Your task to perform on an android device: Add alienware area 51 to the cart on ebay Image 0: 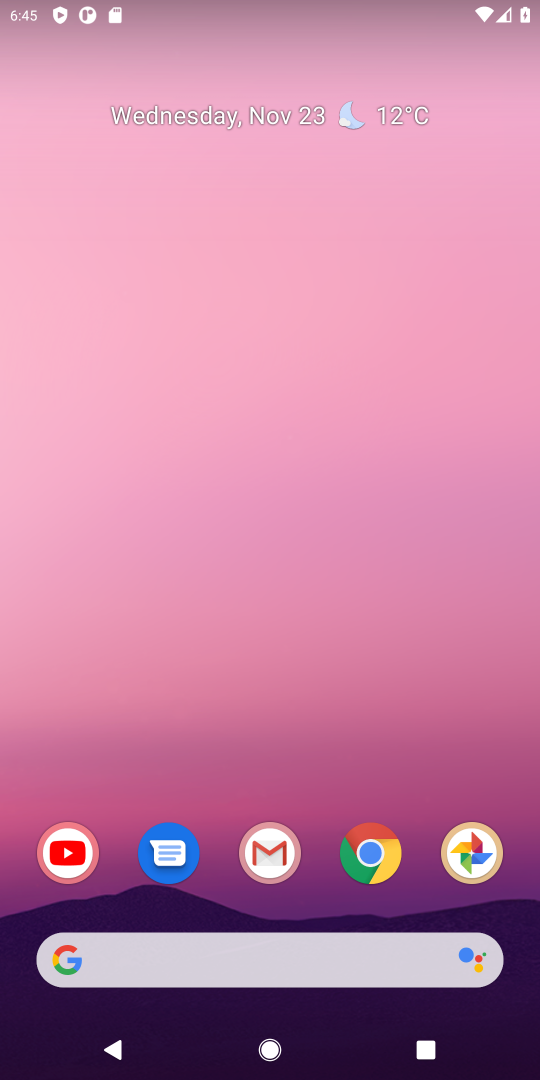
Step 0: click (379, 859)
Your task to perform on an android device: Add alienware area 51 to the cart on ebay Image 1: 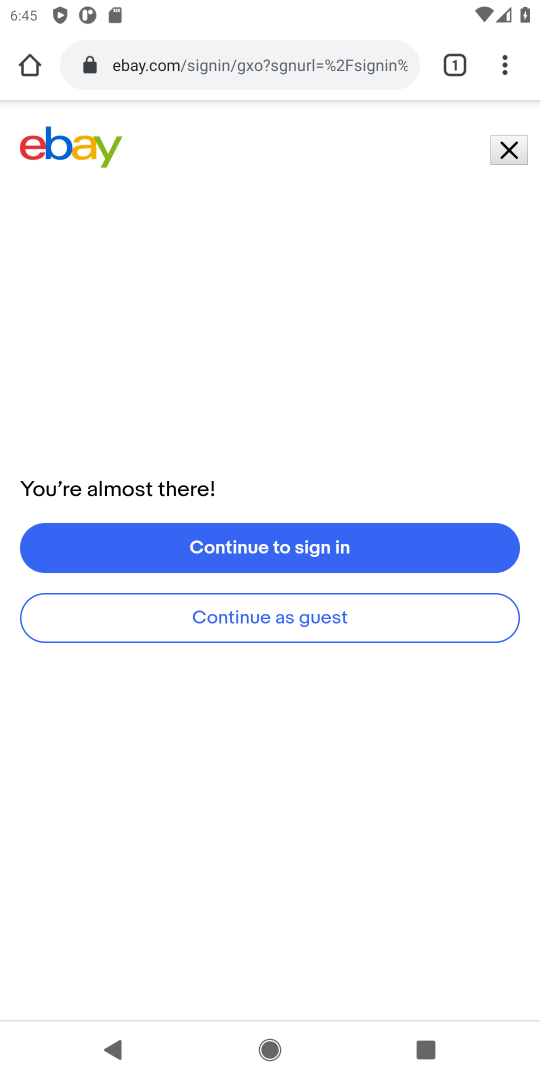
Step 1: click (512, 151)
Your task to perform on an android device: Add alienware area 51 to the cart on ebay Image 2: 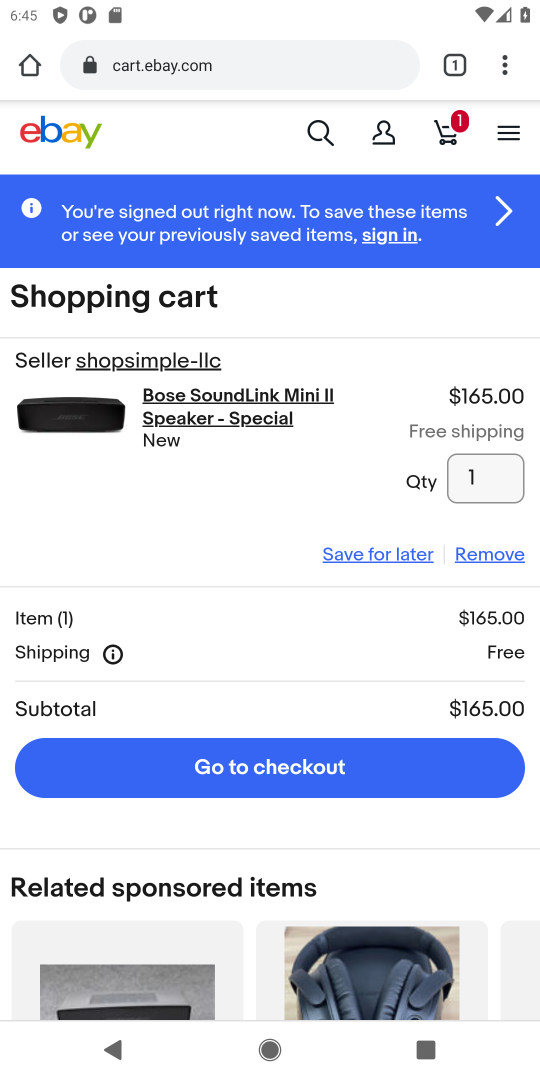
Step 2: click (325, 129)
Your task to perform on an android device: Add alienware area 51 to the cart on ebay Image 3: 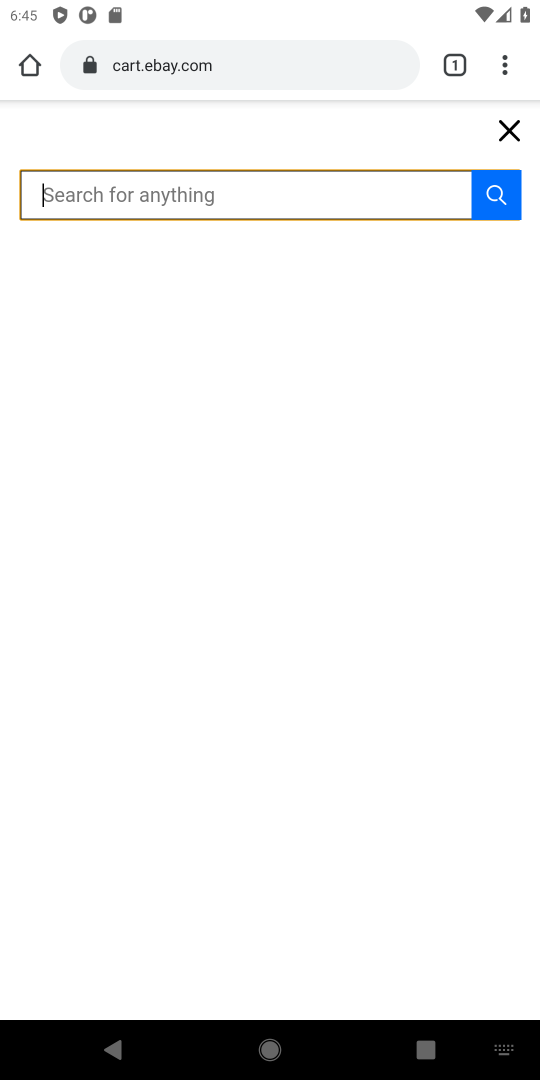
Step 3: click (152, 195)
Your task to perform on an android device: Add alienware area 51 to the cart on ebay Image 4: 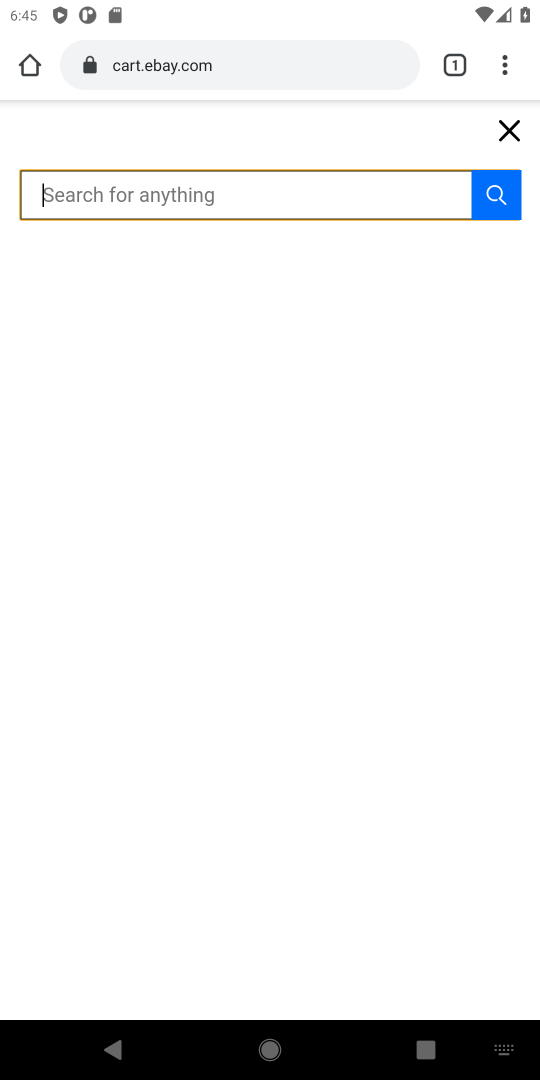
Step 4: type "alienware area 51 "
Your task to perform on an android device: Add alienware area 51 to the cart on ebay Image 5: 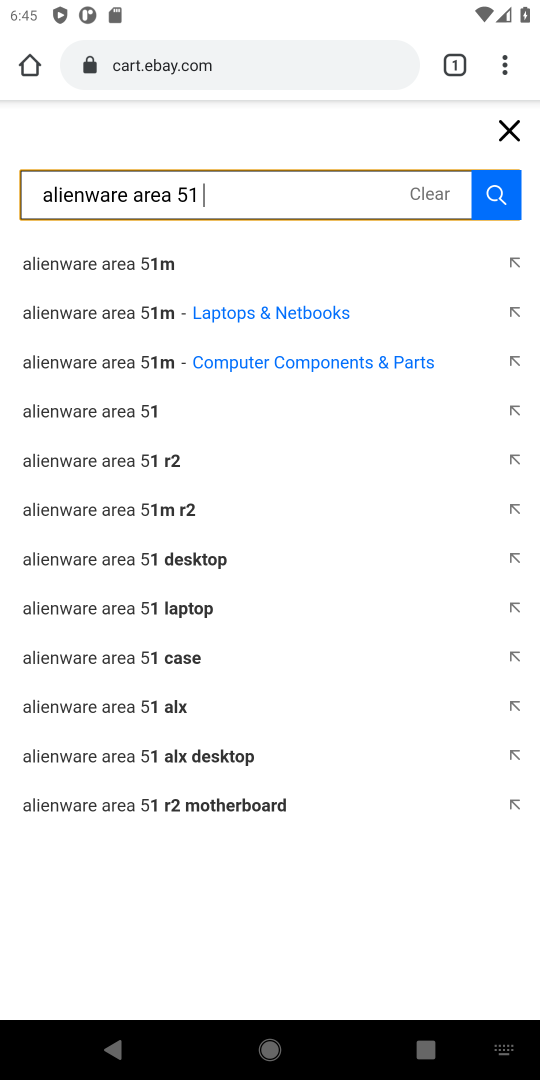
Step 5: click (94, 409)
Your task to perform on an android device: Add alienware area 51 to the cart on ebay Image 6: 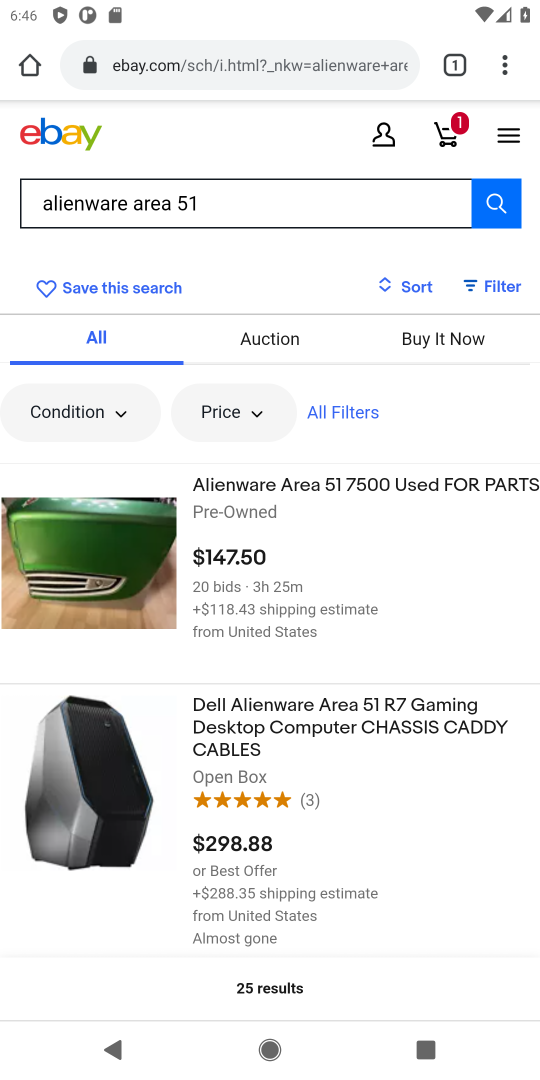
Step 6: drag from (373, 780) to (364, 471)
Your task to perform on an android device: Add alienware area 51 to the cart on ebay Image 7: 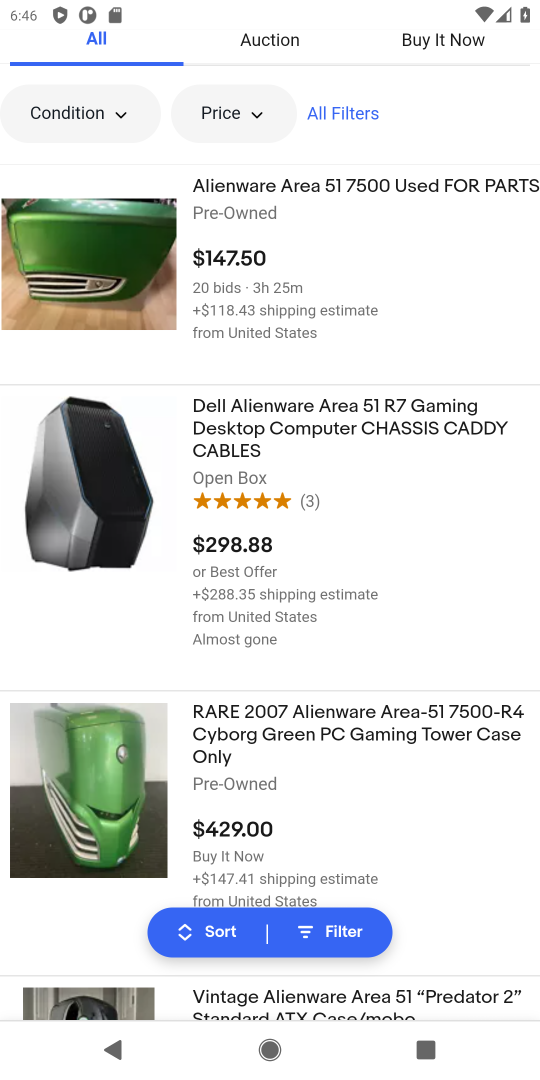
Step 7: click (86, 536)
Your task to perform on an android device: Add alienware area 51 to the cart on ebay Image 8: 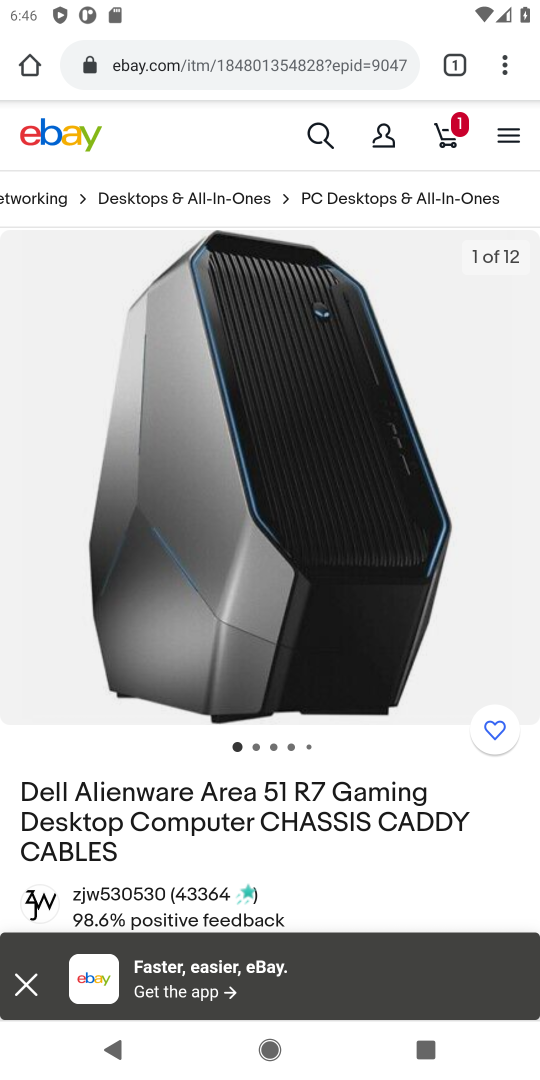
Step 8: drag from (282, 827) to (205, 443)
Your task to perform on an android device: Add alienware area 51 to the cart on ebay Image 9: 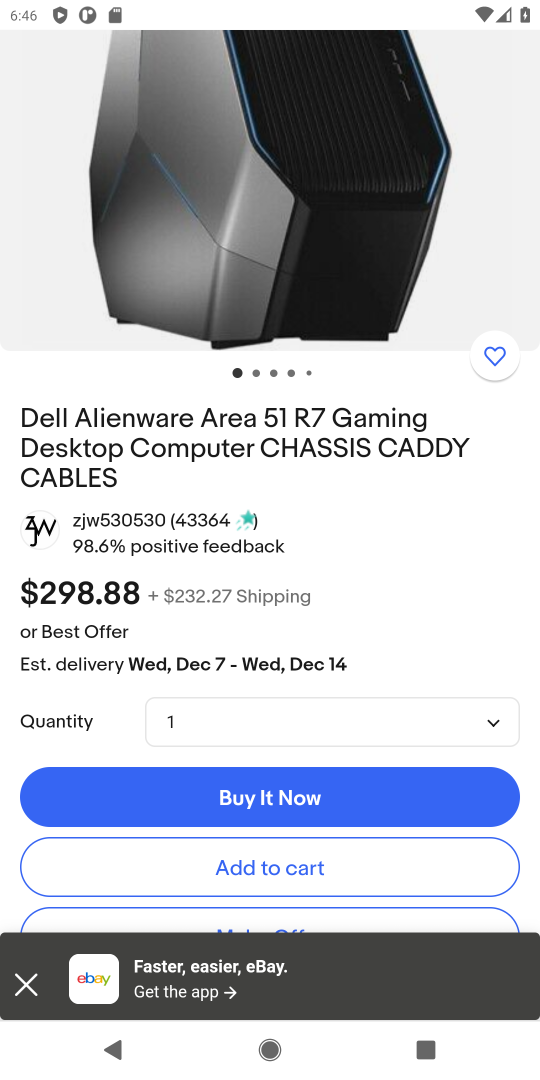
Step 9: click (267, 874)
Your task to perform on an android device: Add alienware area 51 to the cart on ebay Image 10: 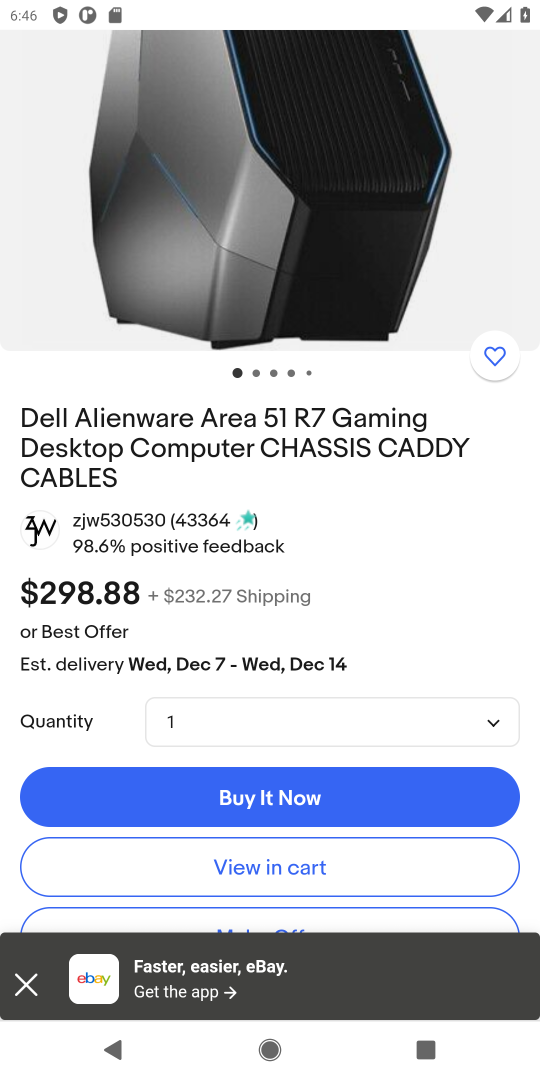
Step 10: task complete